Your task to perform on an android device: change your default location settings in chrome Image 0: 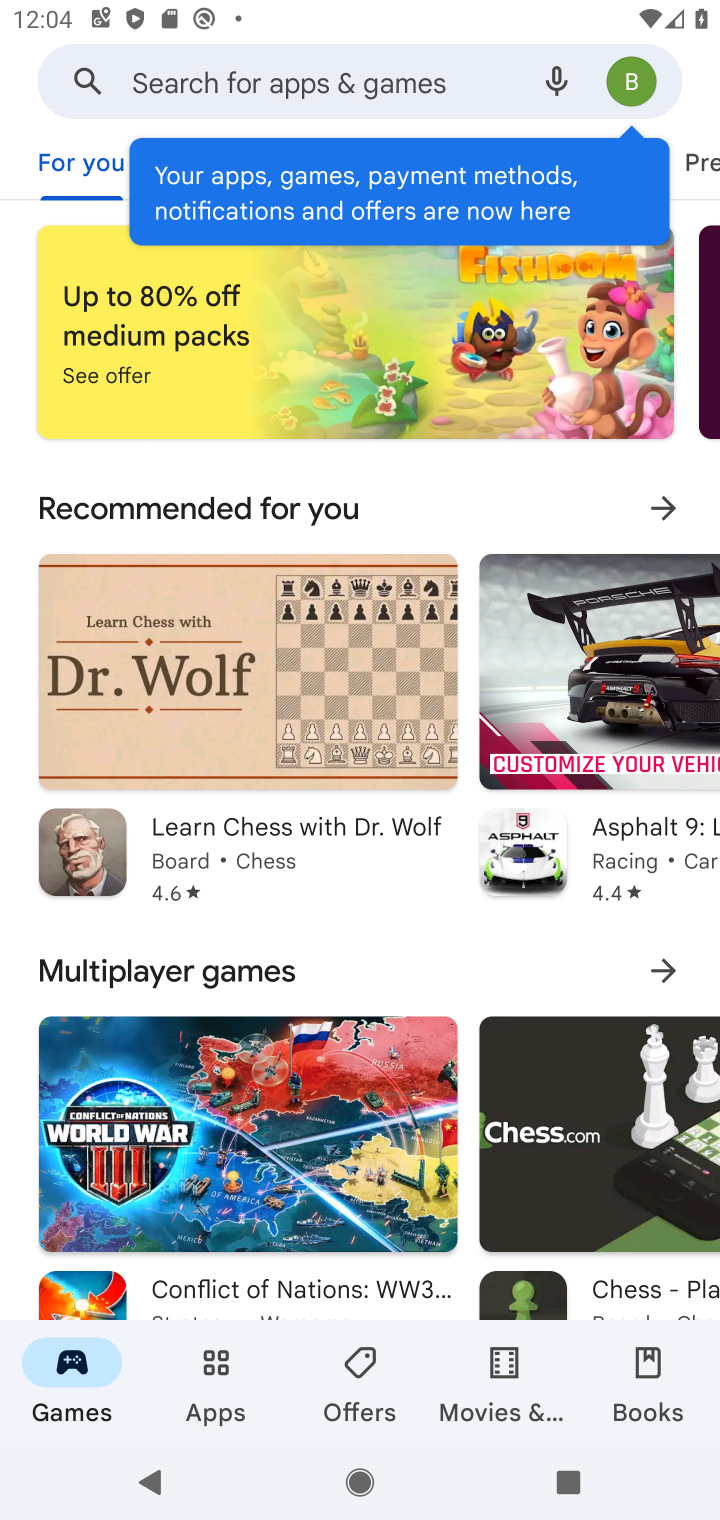
Step 0: press back button
Your task to perform on an android device: change your default location settings in chrome Image 1: 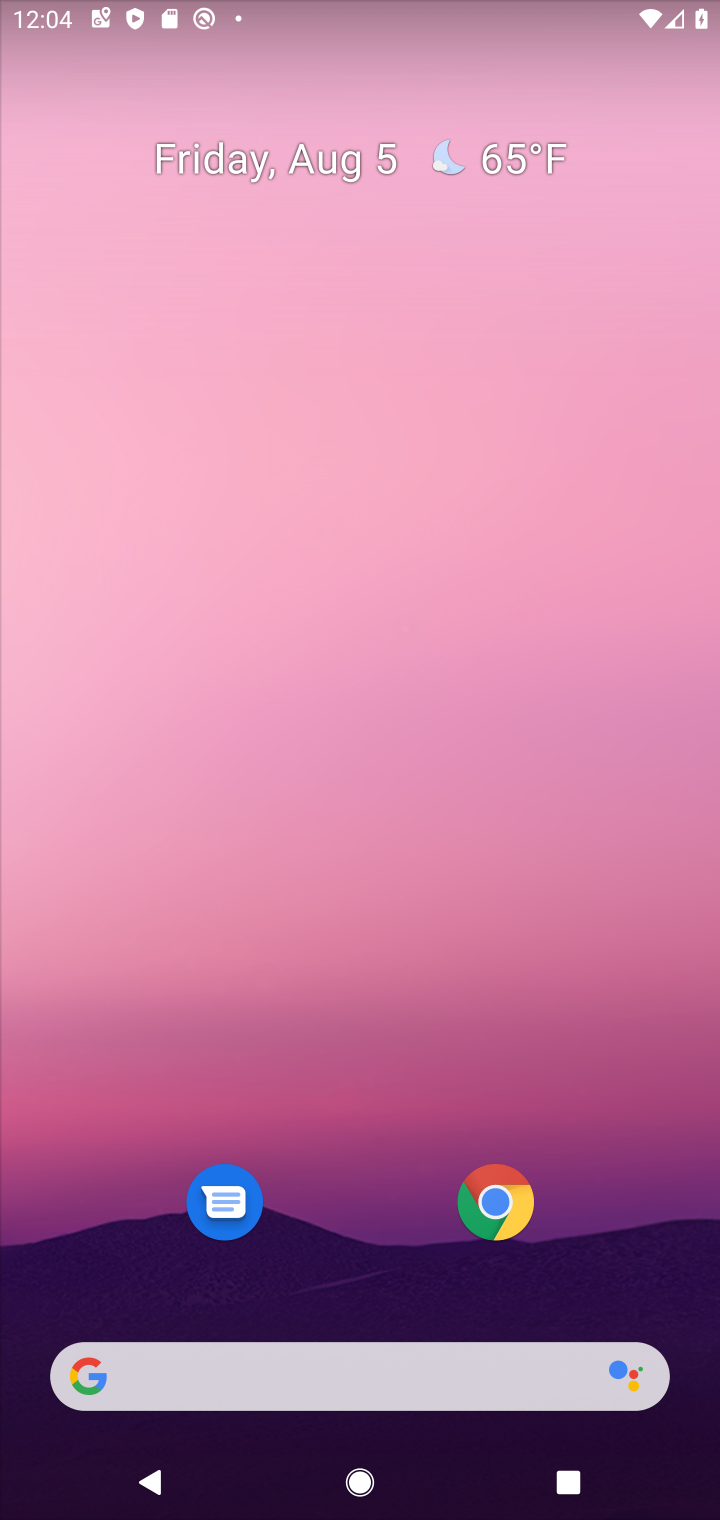
Step 1: drag from (364, 1264) to (589, 105)
Your task to perform on an android device: change your default location settings in chrome Image 2: 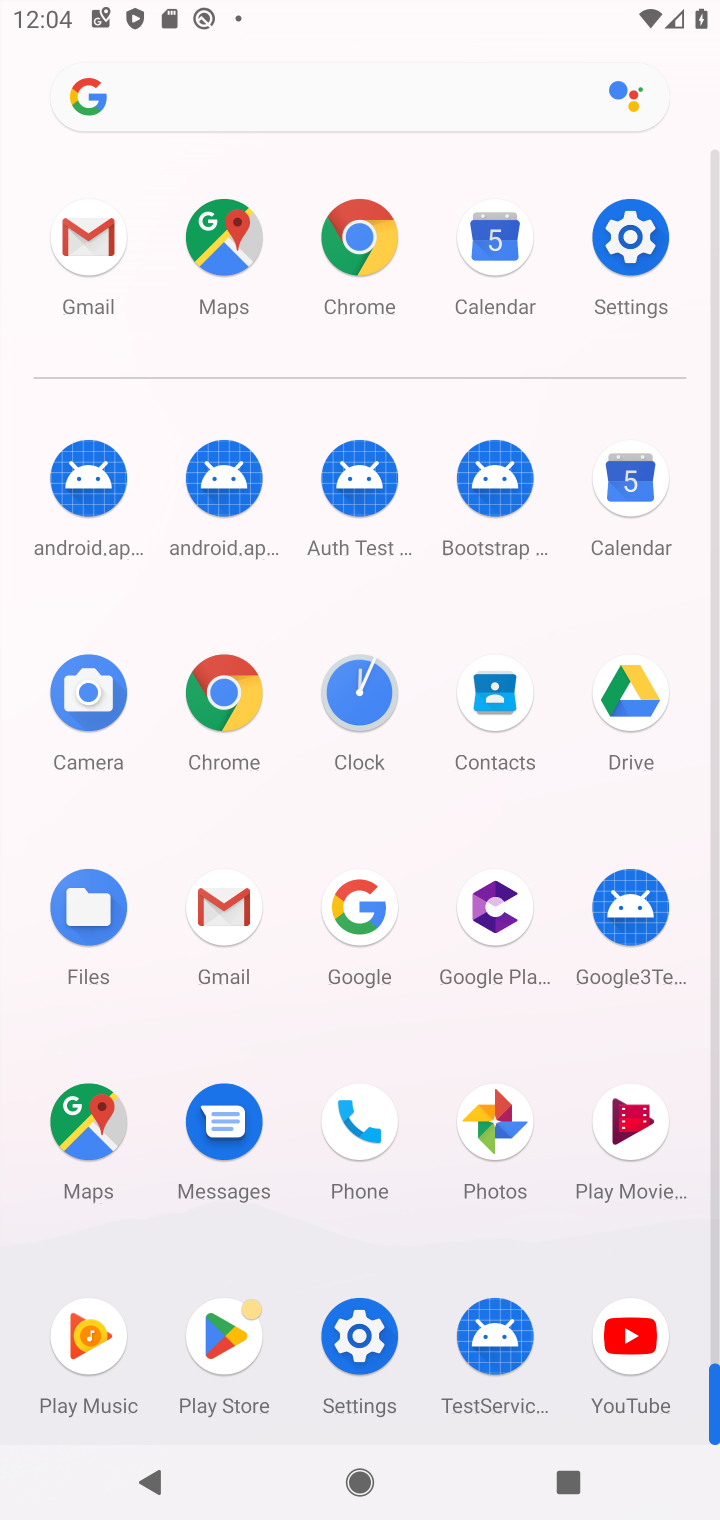
Step 2: click (365, 294)
Your task to perform on an android device: change your default location settings in chrome Image 3: 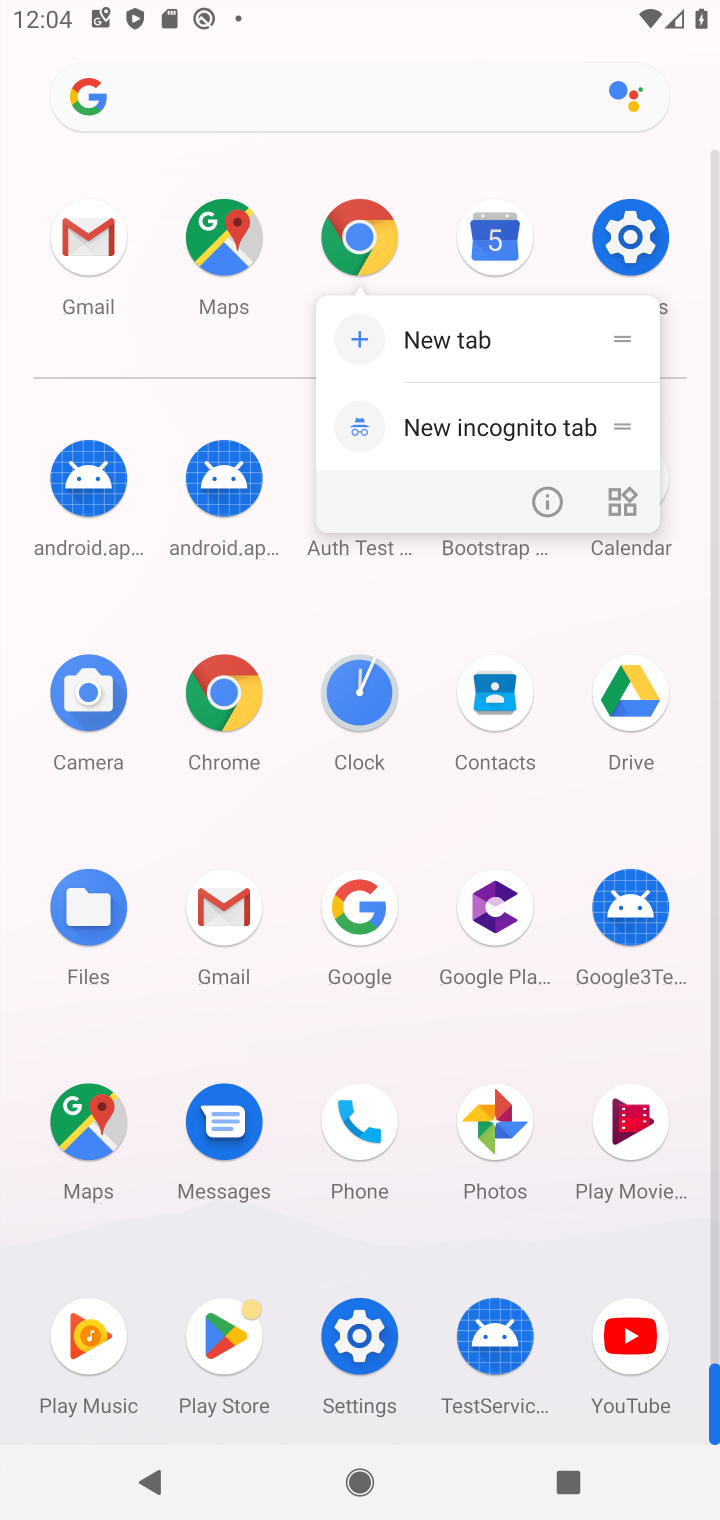
Step 3: click (365, 273)
Your task to perform on an android device: change your default location settings in chrome Image 4: 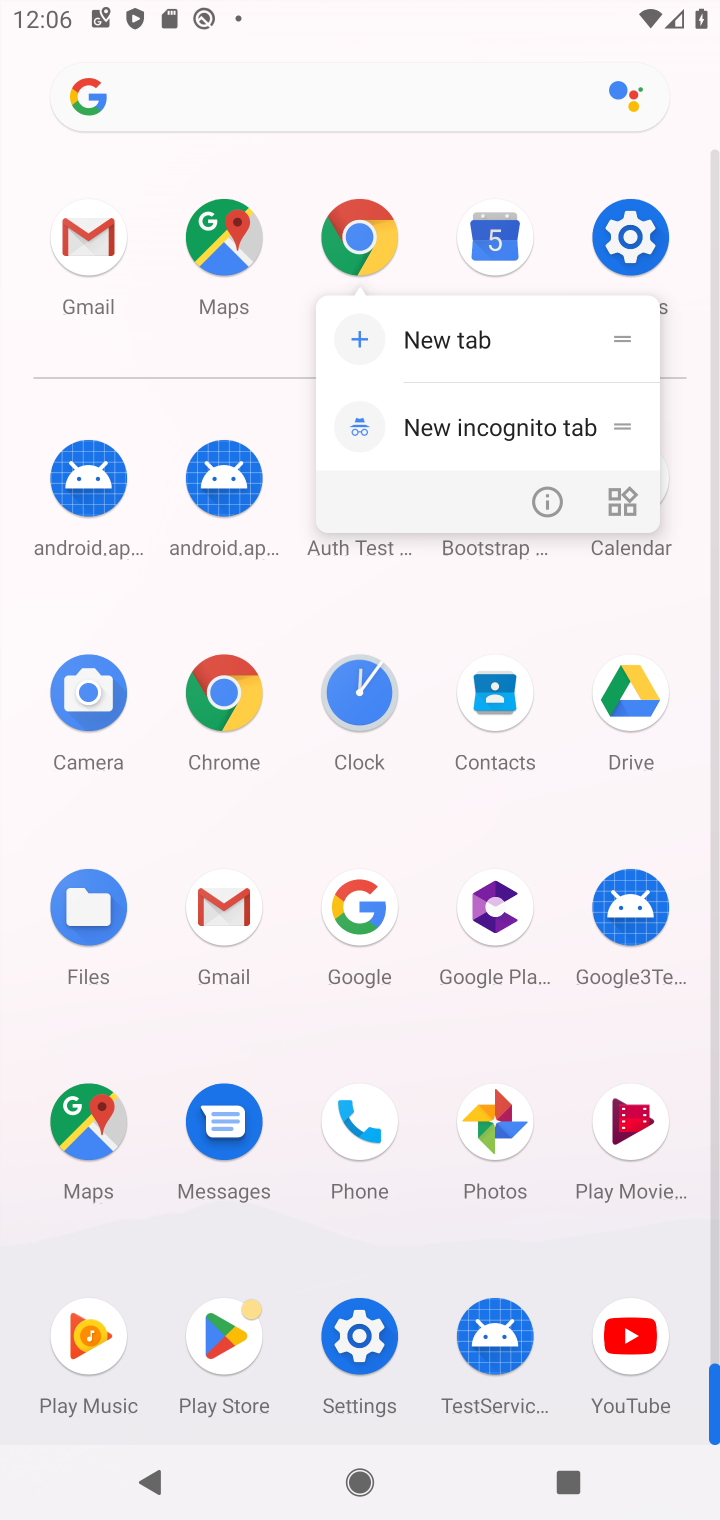
Step 4: click (232, 708)
Your task to perform on an android device: change your default location settings in chrome Image 5: 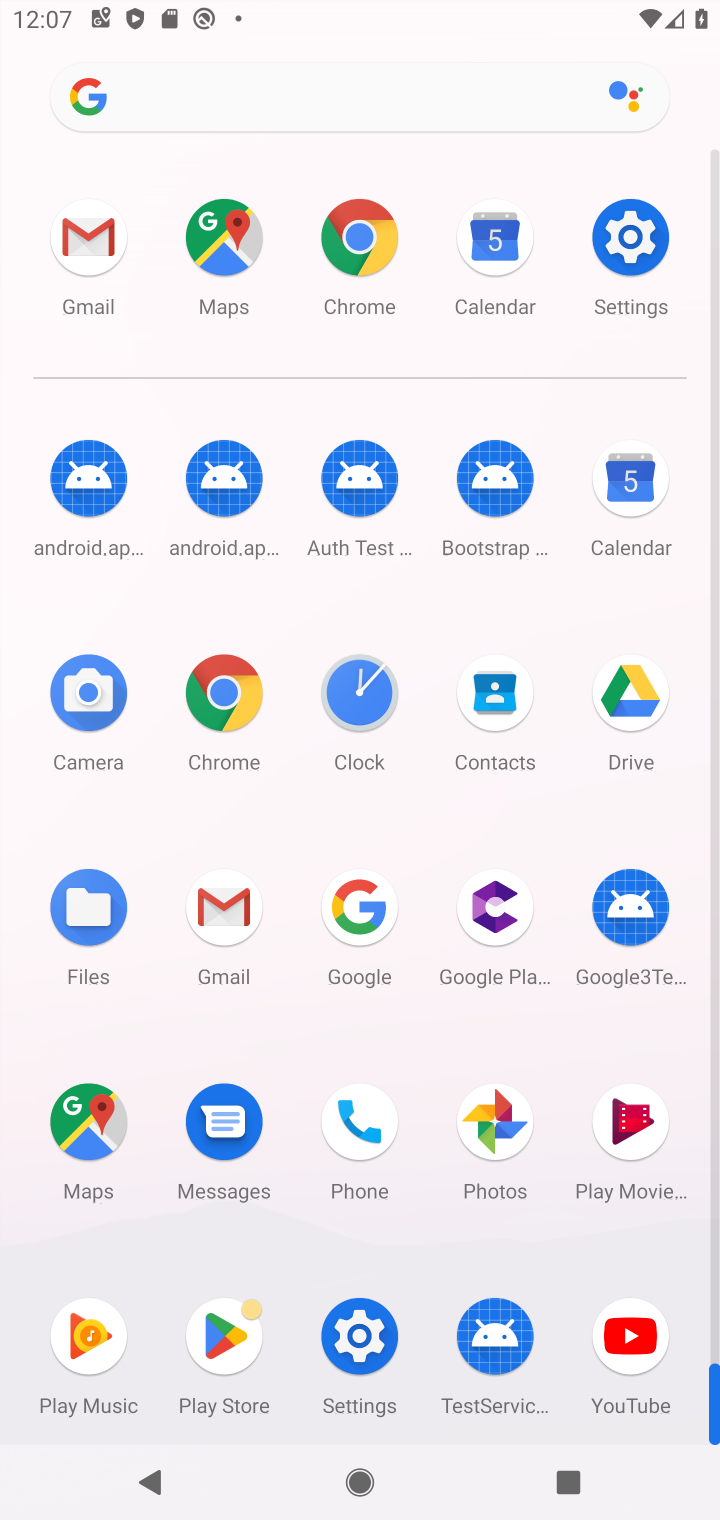
Step 5: click (216, 674)
Your task to perform on an android device: change your default location settings in chrome Image 6: 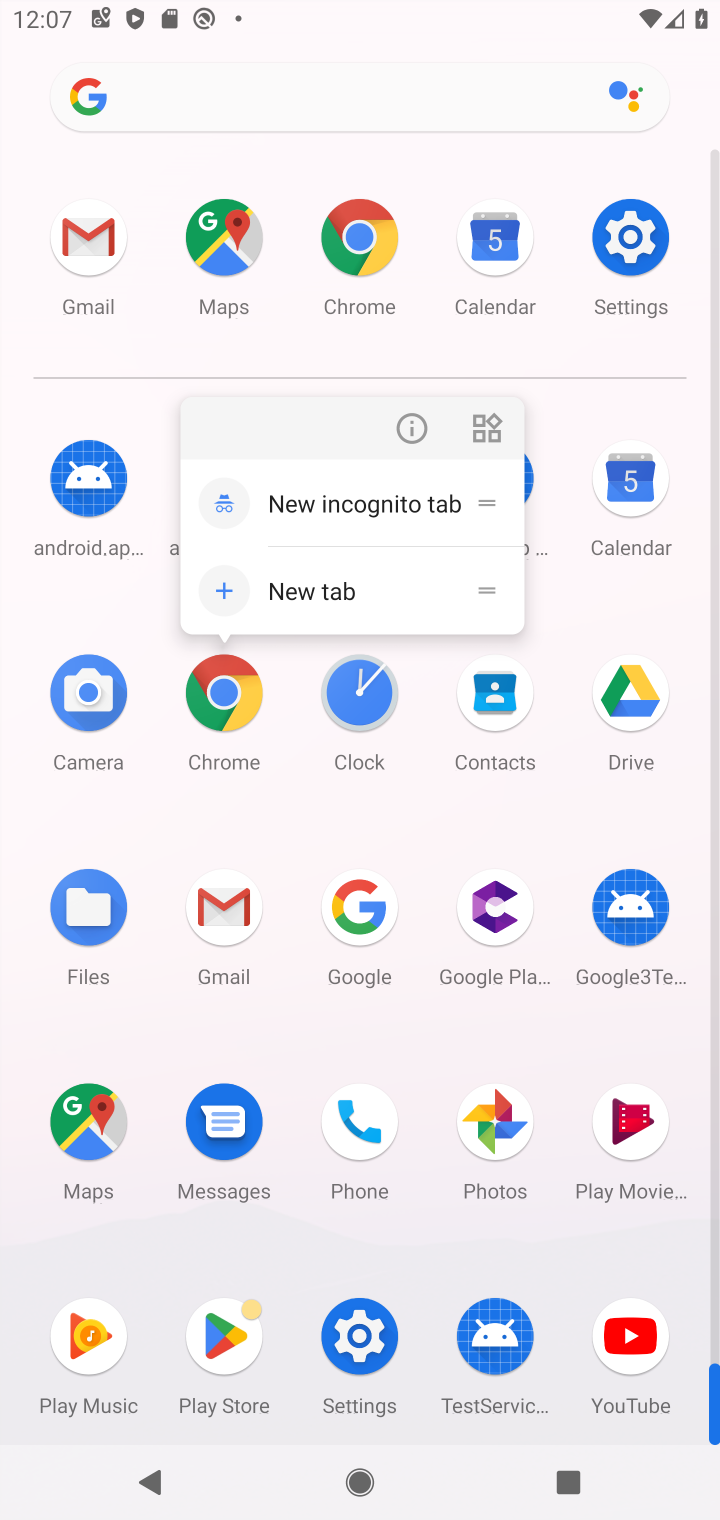
Step 6: click (375, 224)
Your task to perform on an android device: change your default location settings in chrome Image 7: 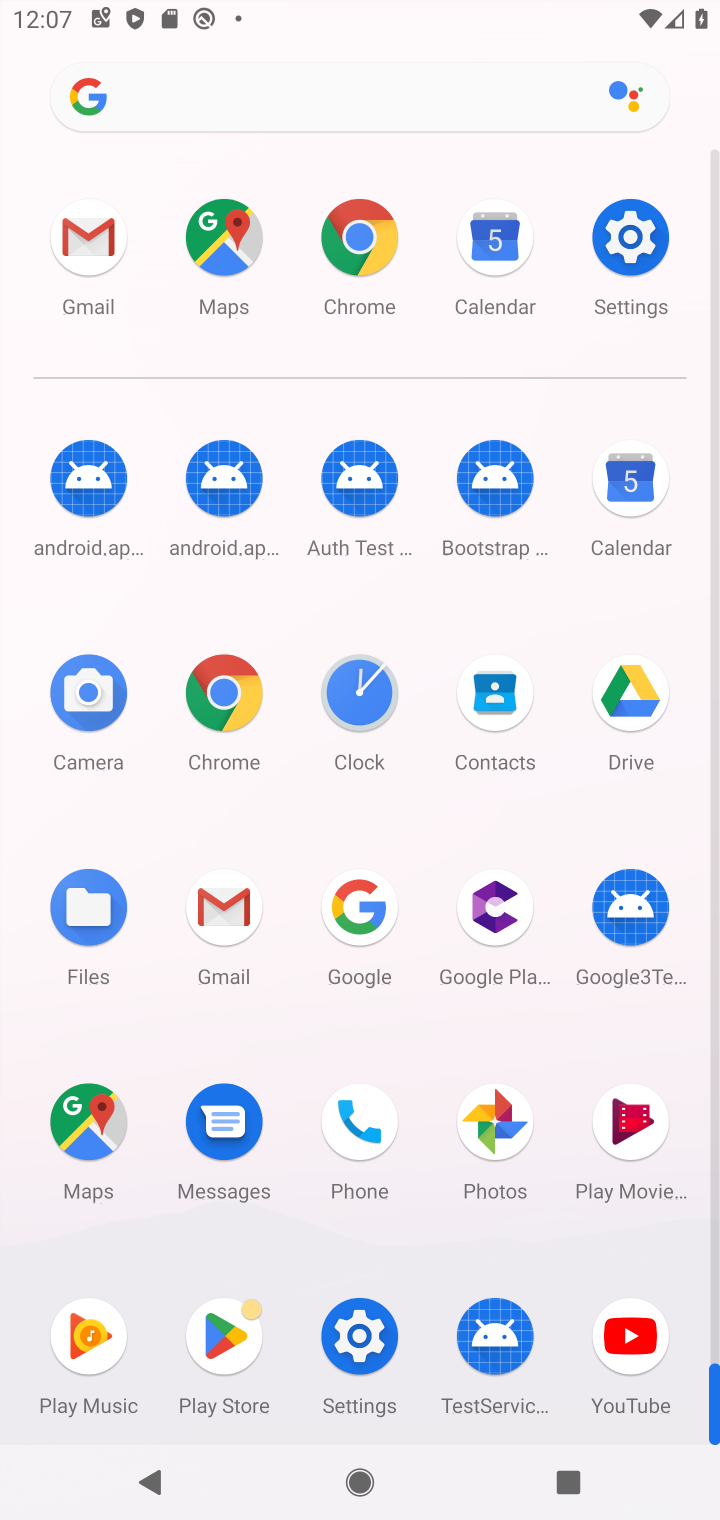
Step 7: click (346, 271)
Your task to perform on an android device: change your default location settings in chrome Image 8: 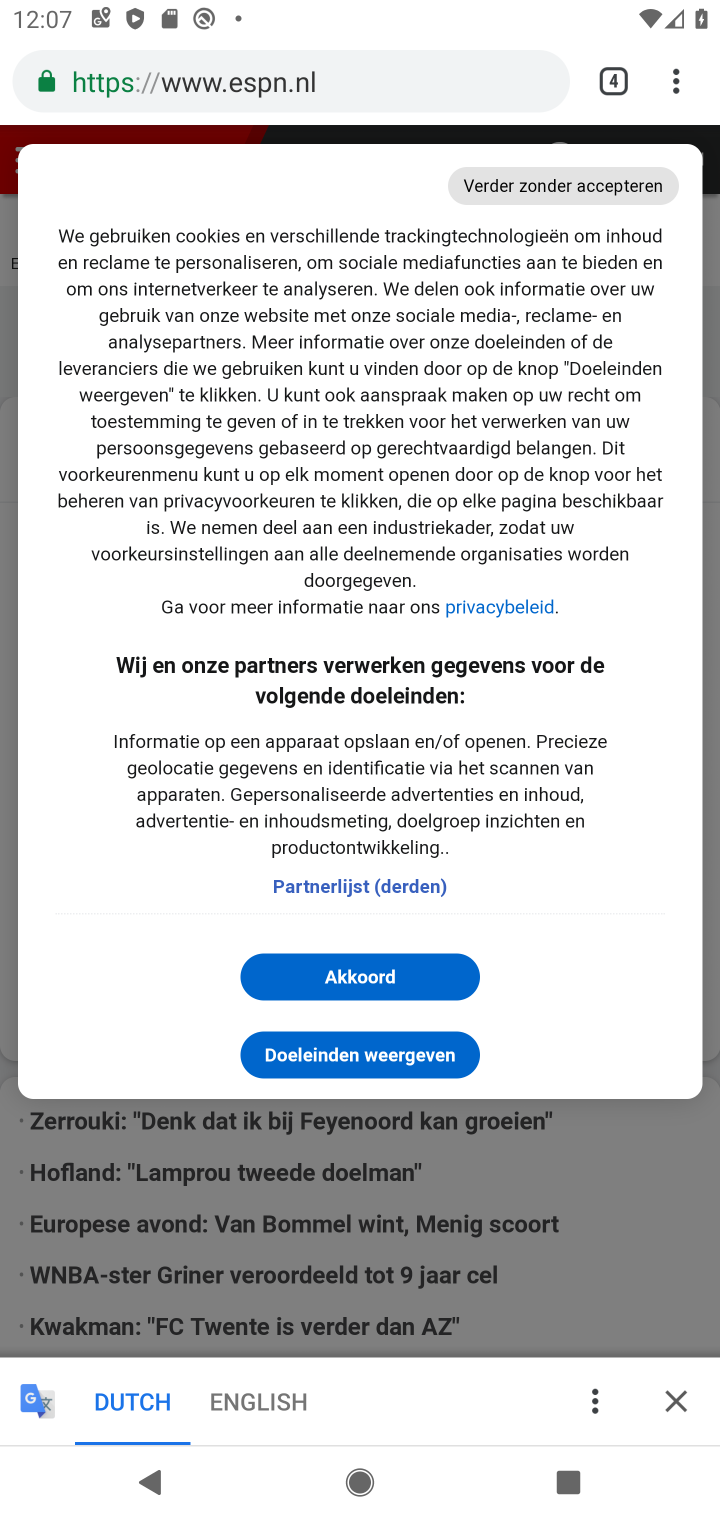
Step 8: drag from (669, 48) to (383, 1005)
Your task to perform on an android device: change your default location settings in chrome Image 9: 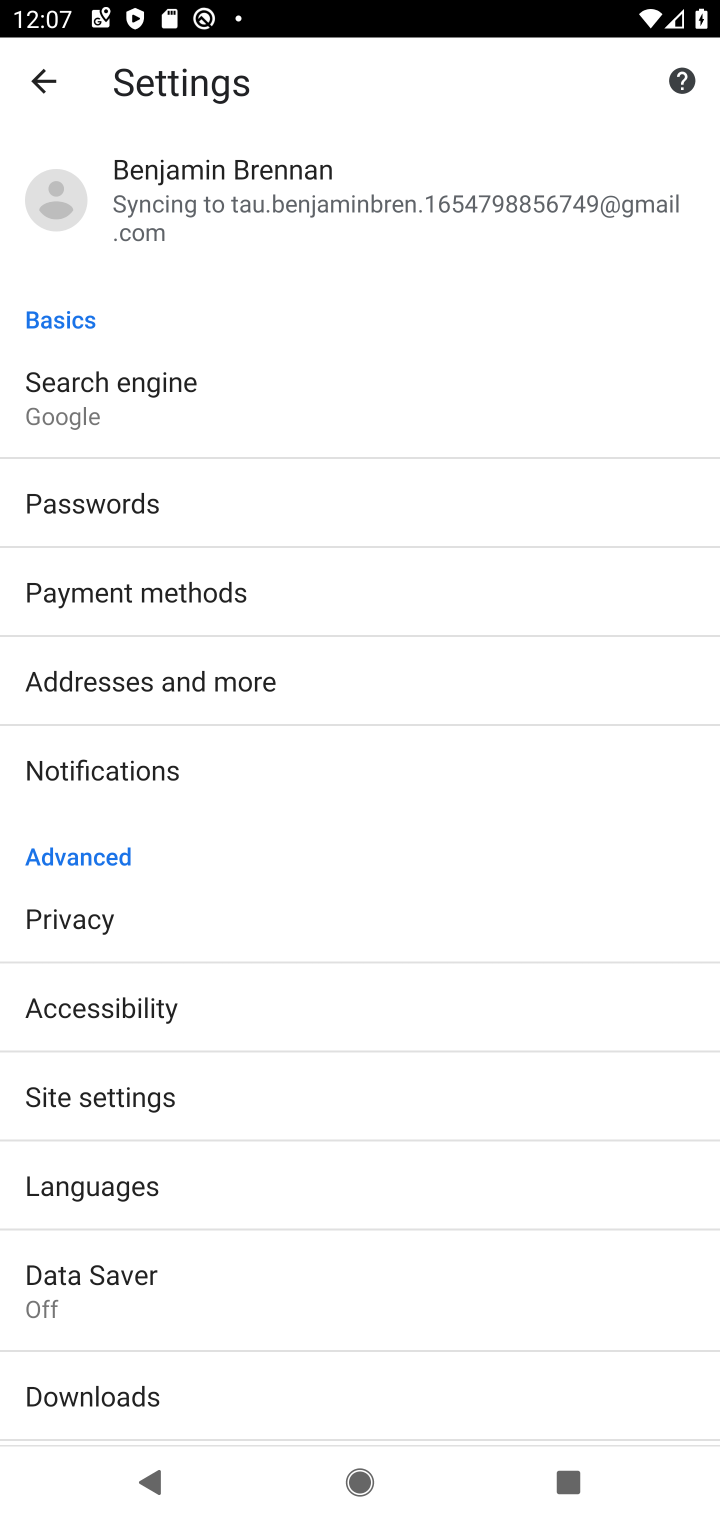
Step 9: drag from (218, 1326) to (297, 184)
Your task to perform on an android device: change your default location settings in chrome Image 10: 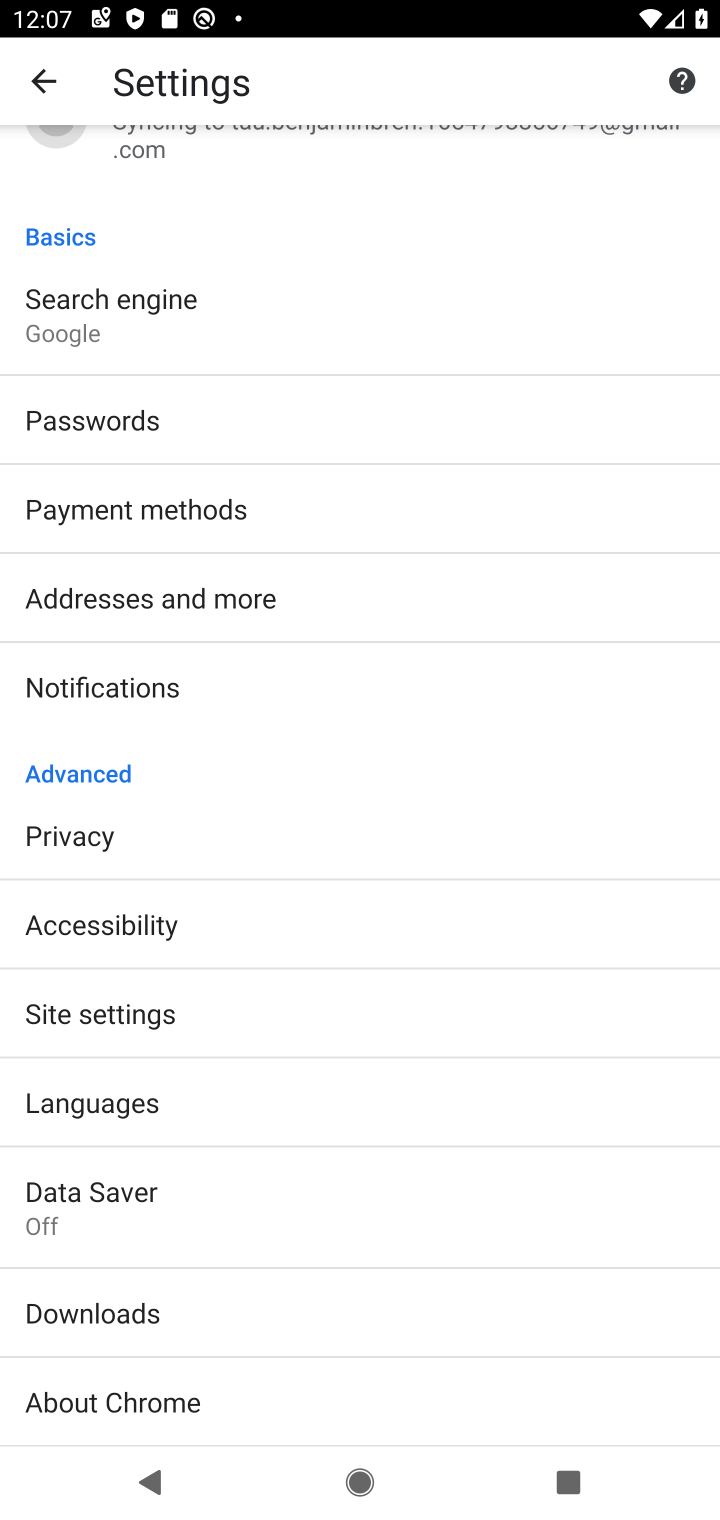
Step 10: click (67, 1004)
Your task to perform on an android device: change your default location settings in chrome Image 11: 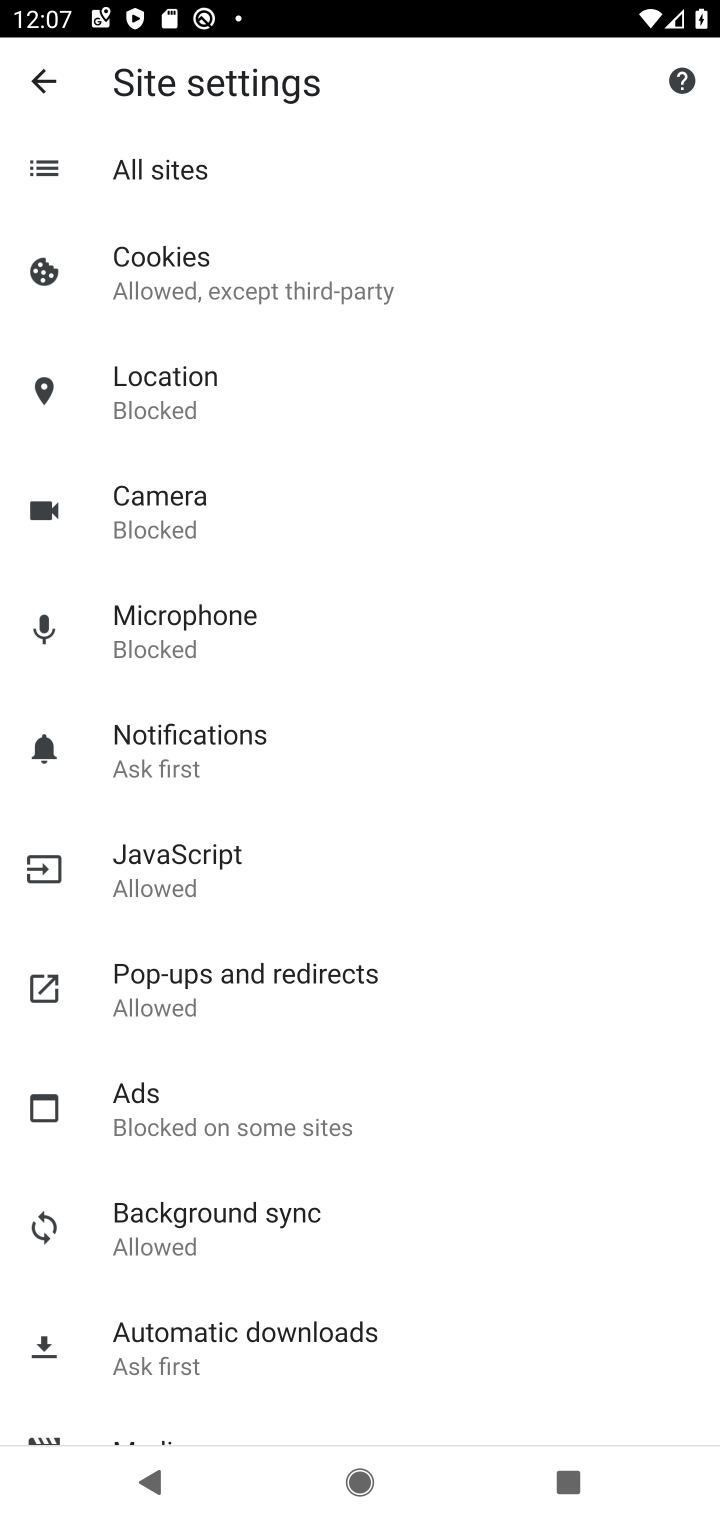
Step 11: click (241, 383)
Your task to perform on an android device: change your default location settings in chrome Image 12: 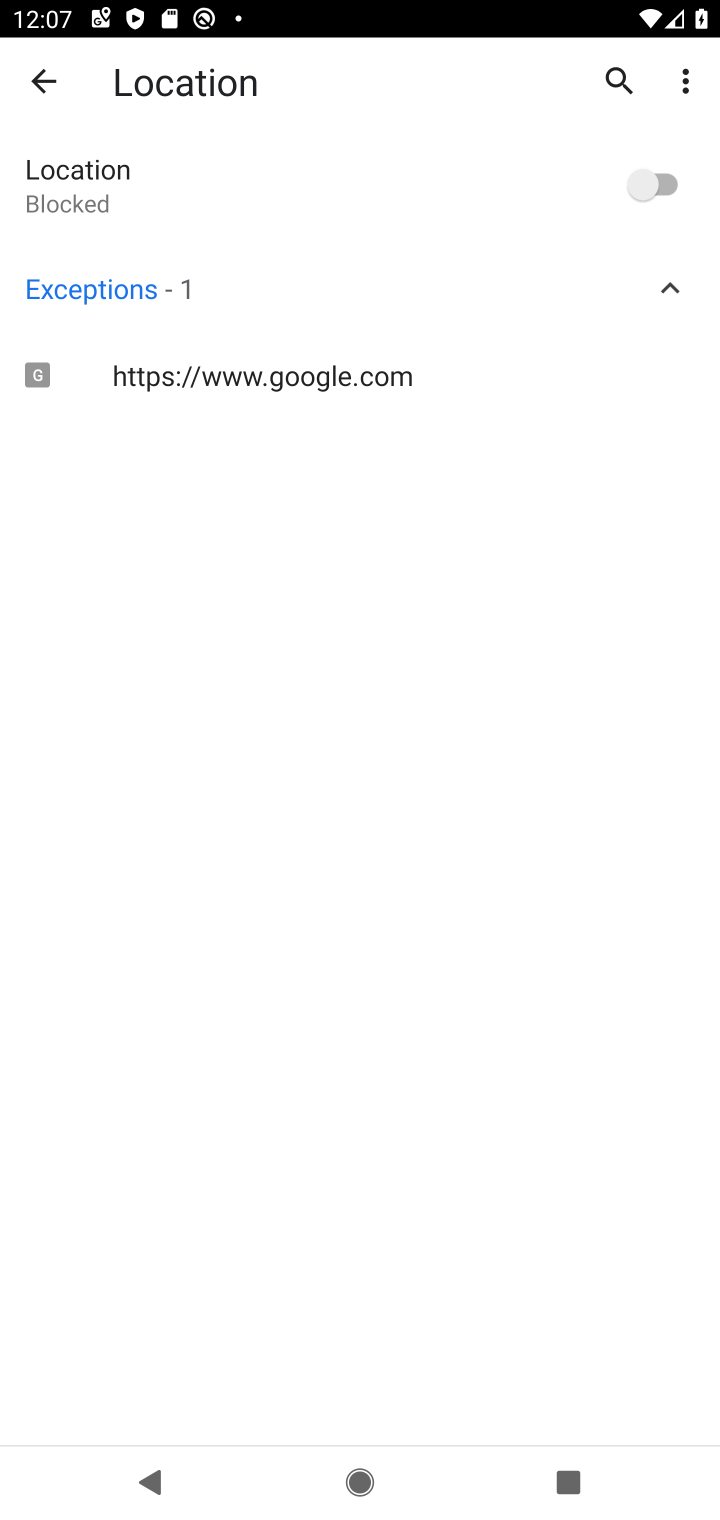
Step 12: click (665, 197)
Your task to perform on an android device: change your default location settings in chrome Image 13: 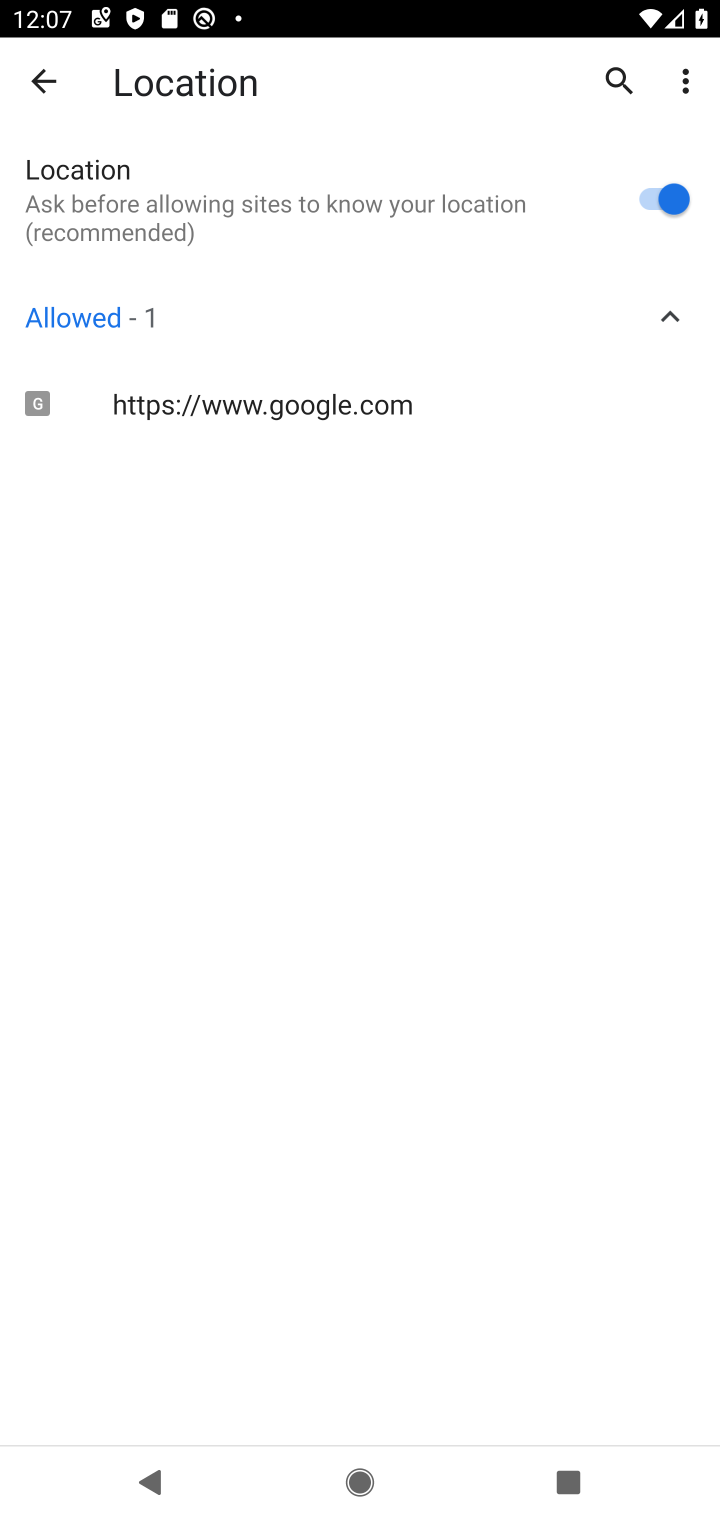
Step 13: task complete